Your task to perform on an android device: turn off wifi Image 0: 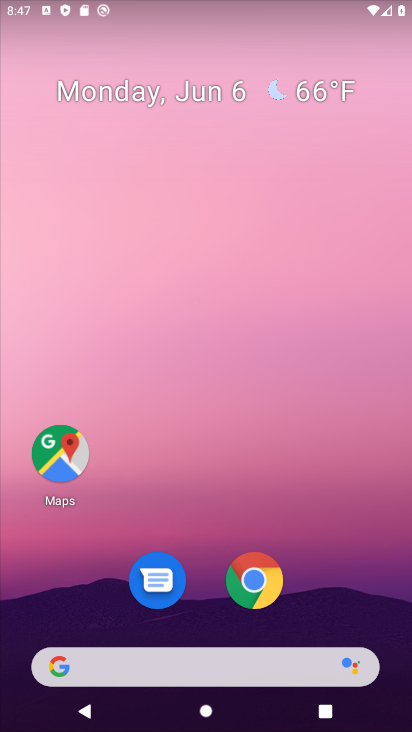
Step 0: drag from (350, 495) to (385, 2)
Your task to perform on an android device: turn off wifi Image 1: 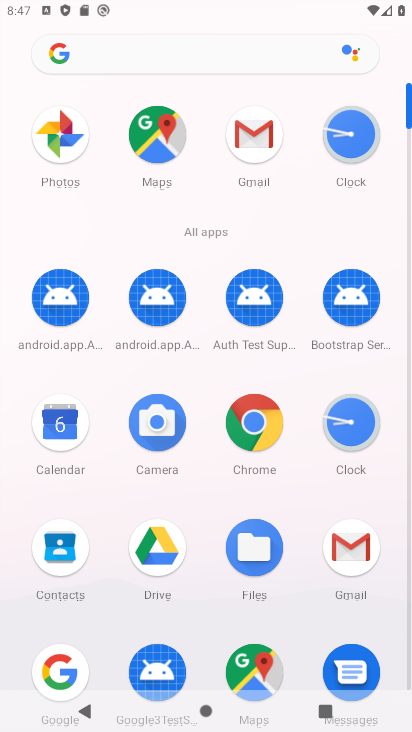
Step 1: drag from (399, 657) to (321, 37)
Your task to perform on an android device: turn off wifi Image 2: 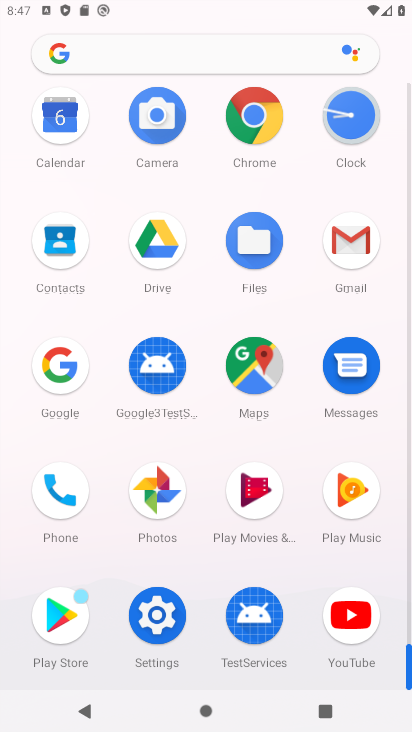
Step 2: click (151, 619)
Your task to perform on an android device: turn off wifi Image 3: 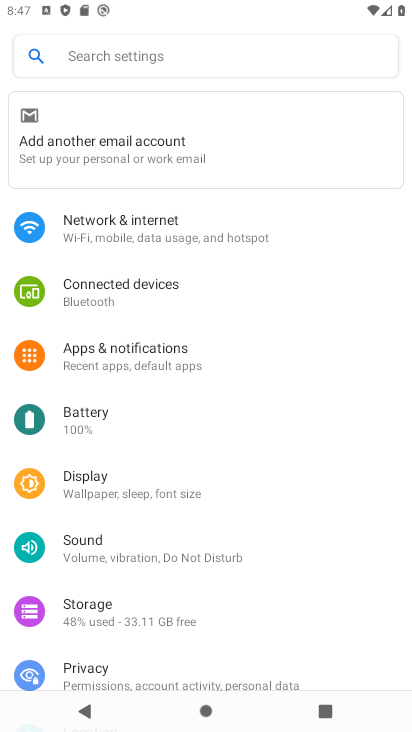
Step 3: click (145, 239)
Your task to perform on an android device: turn off wifi Image 4: 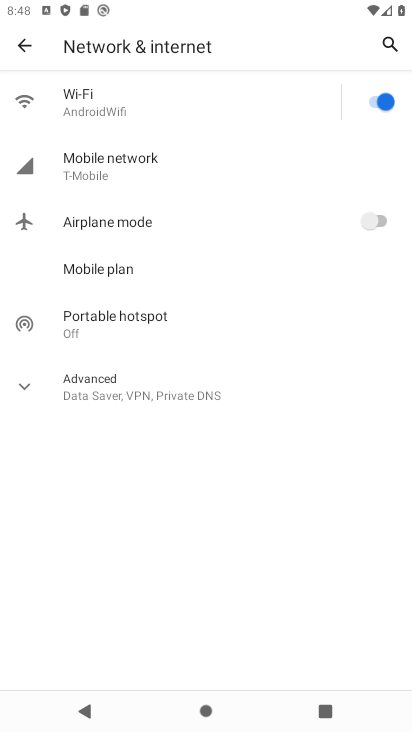
Step 4: click (375, 106)
Your task to perform on an android device: turn off wifi Image 5: 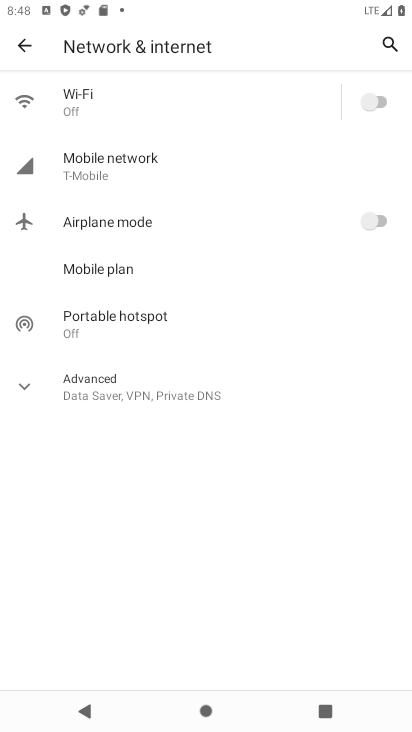
Step 5: task complete